Your task to perform on an android device: Open Reddit.com Image 0: 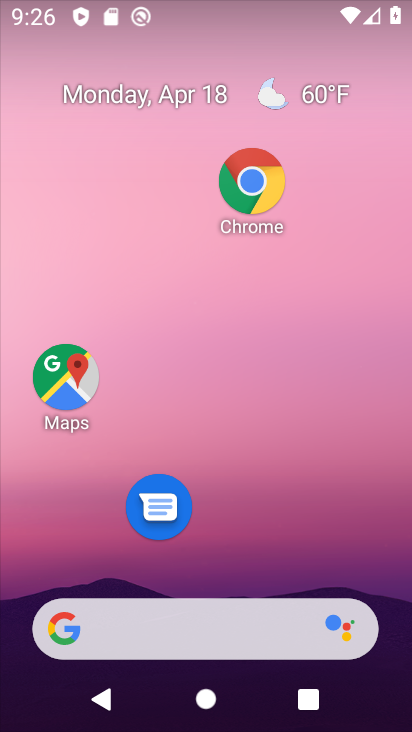
Step 0: click (263, 164)
Your task to perform on an android device: Open Reddit.com Image 1: 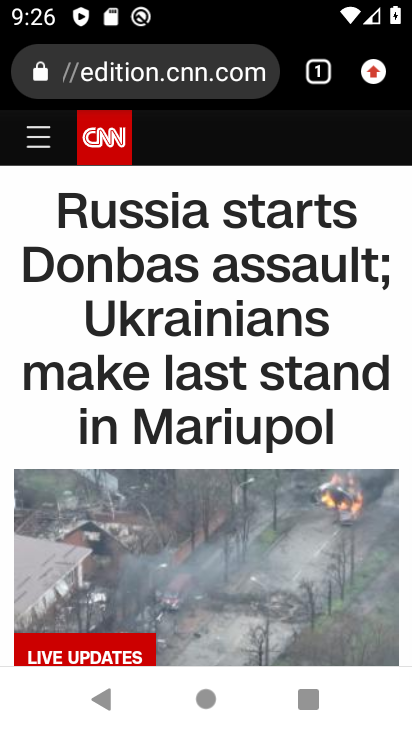
Step 1: click (191, 75)
Your task to perform on an android device: Open Reddit.com Image 2: 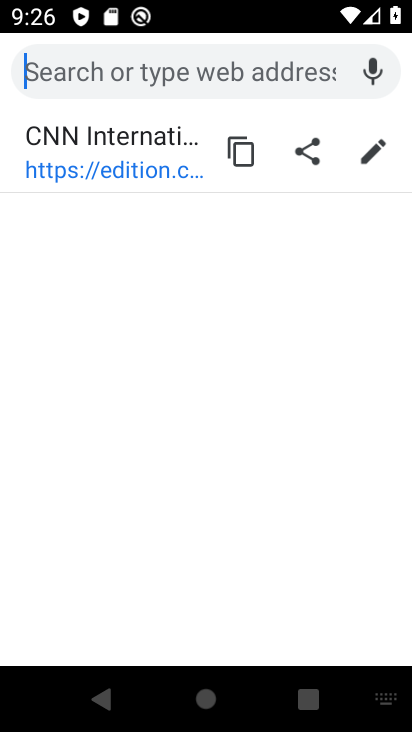
Step 2: type "reddit.com"
Your task to perform on an android device: Open Reddit.com Image 3: 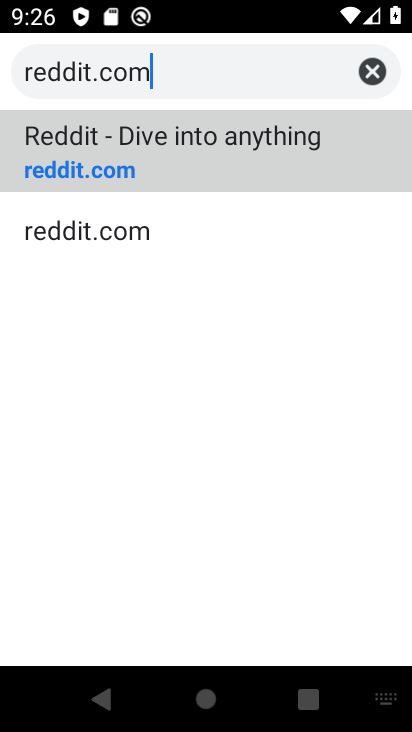
Step 3: click (292, 177)
Your task to perform on an android device: Open Reddit.com Image 4: 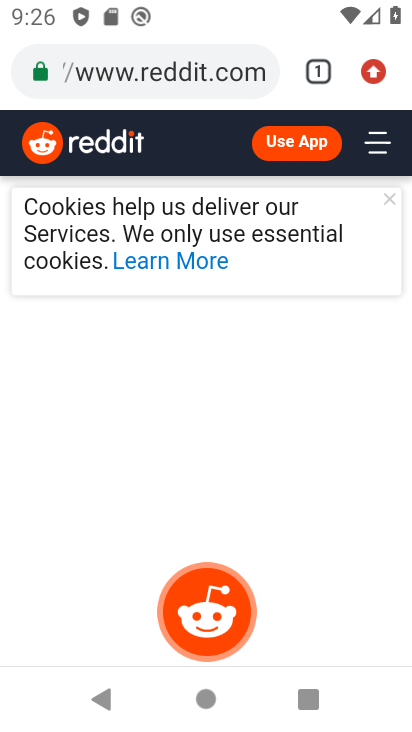
Step 4: task complete